Your task to perform on an android device: Check the news Image 0: 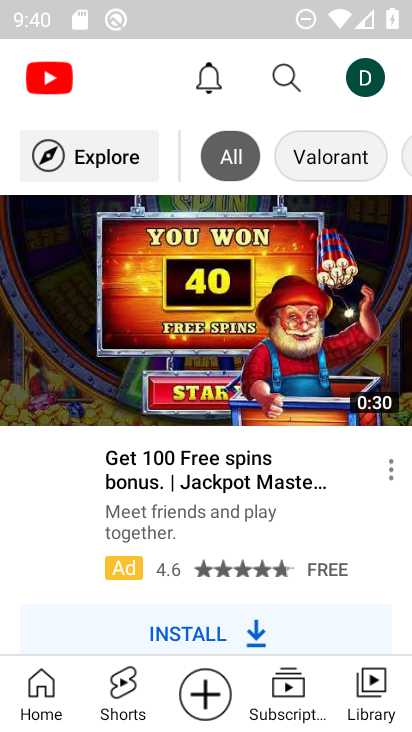
Step 0: press home button
Your task to perform on an android device: Check the news Image 1: 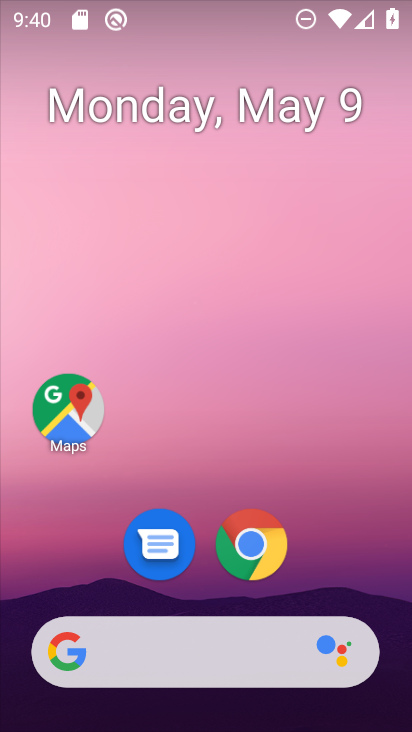
Step 1: task complete